Your task to perform on an android device: What is the news today? Image 0: 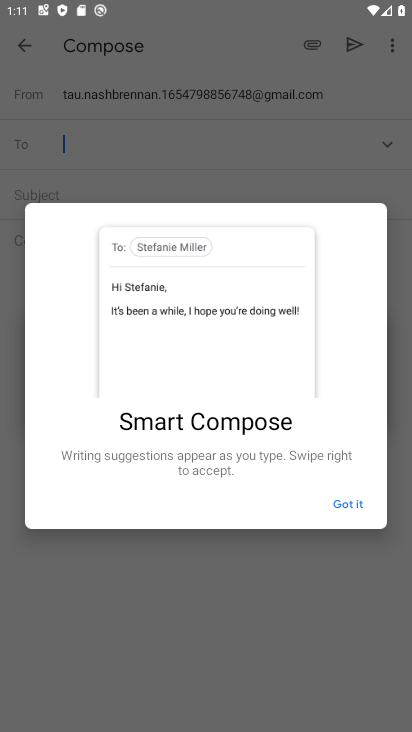
Step 0: press home button
Your task to perform on an android device: What is the news today? Image 1: 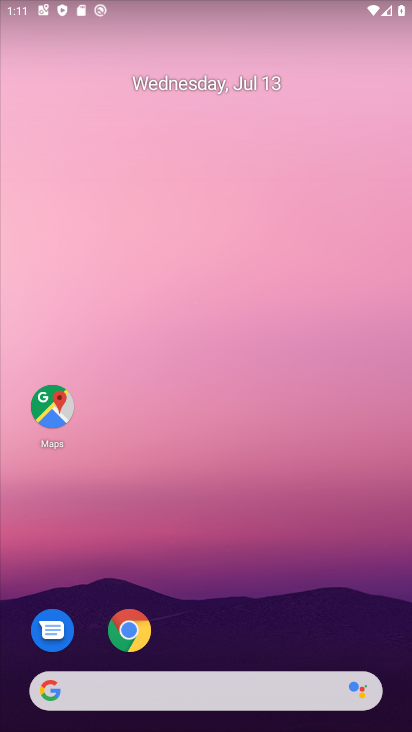
Step 1: task complete